Your task to perform on an android device: What's on my calendar tomorrow? Image 0: 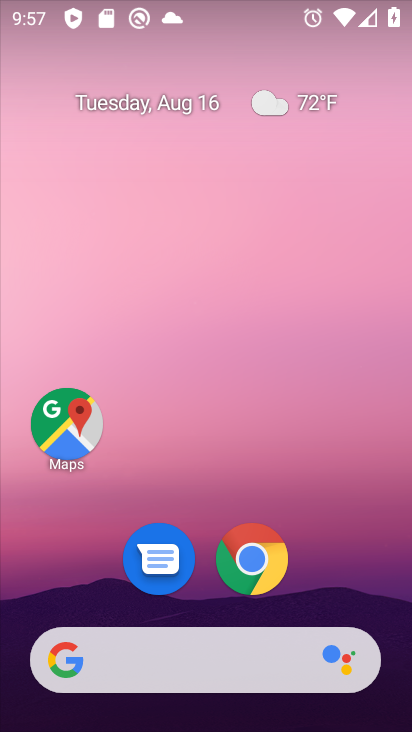
Step 0: drag from (156, 668) to (248, 132)
Your task to perform on an android device: What's on my calendar tomorrow? Image 1: 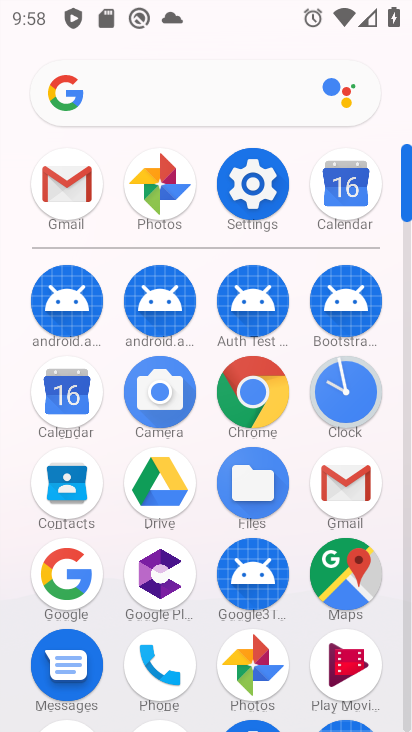
Step 1: click (69, 399)
Your task to perform on an android device: What's on my calendar tomorrow? Image 2: 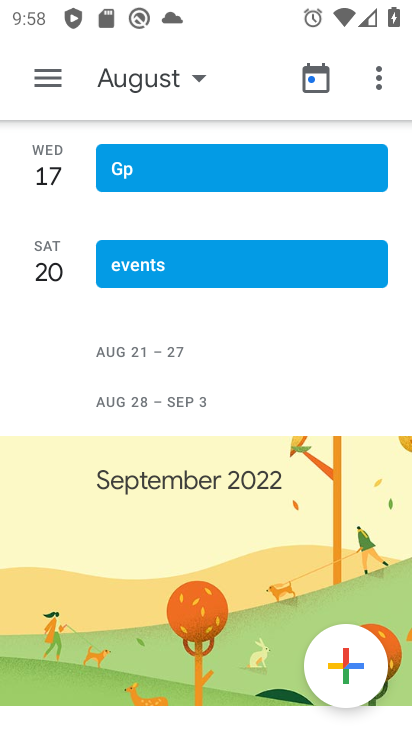
Step 2: click (317, 82)
Your task to perform on an android device: What's on my calendar tomorrow? Image 3: 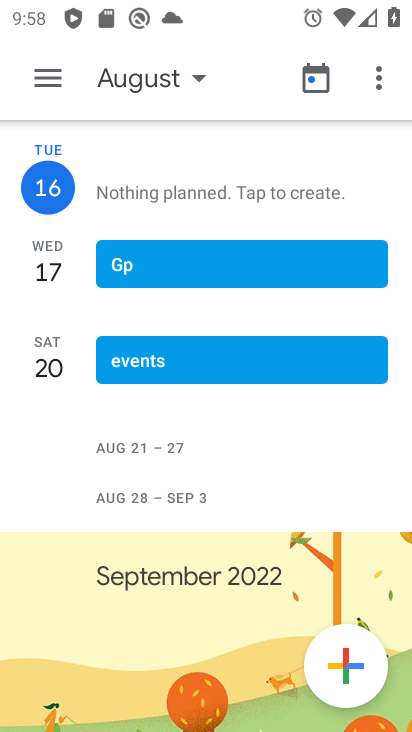
Step 3: click (317, 79)
Your task to perform on an android device: What's on my calendar tomorrow? Image 4: 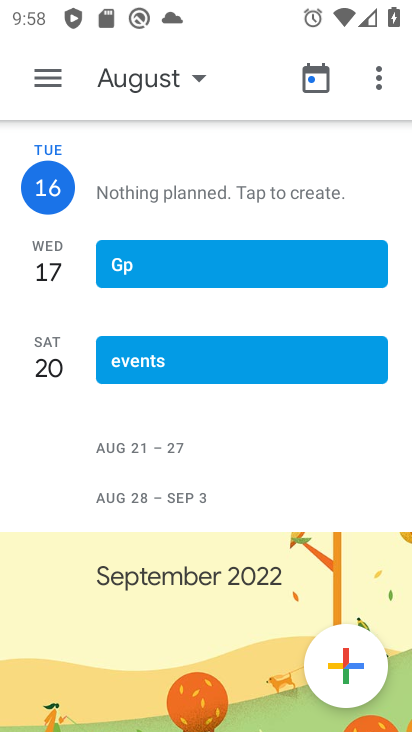
Step 4: click (200, 75)
Your task to perform on an android device: What's on my calendar tomorrow? Image 5: 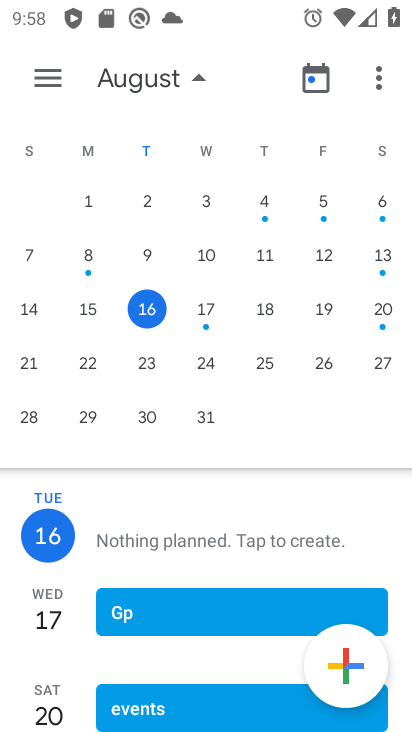
Step 5: click (206, 310)
Your task to perform on an android device: What's on my calendar tomorrow? Image 6: 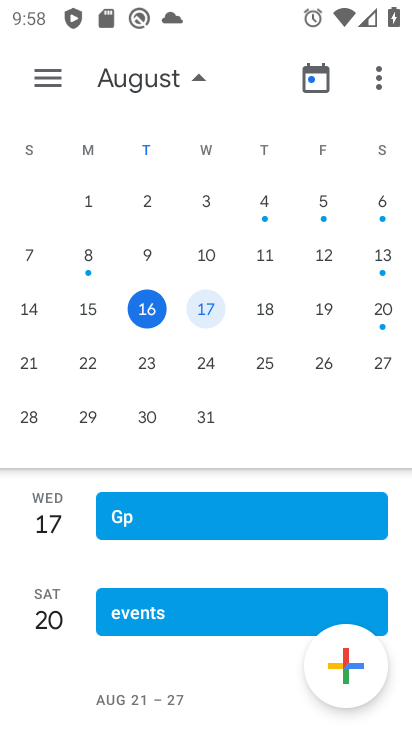
Step 6: click (45, 85)
Your task to perform on an android device: What's on my calendar tomorrow? Image 7: 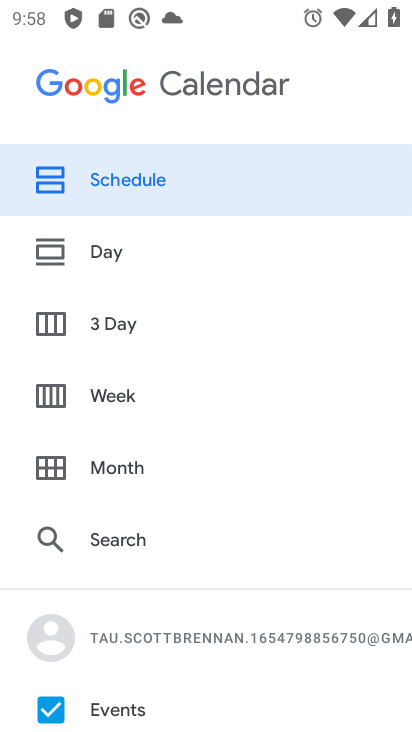
Step 7: click (154, 194)
Your task to perform on an android device: What's on my calendar tomorrow? Image 8: 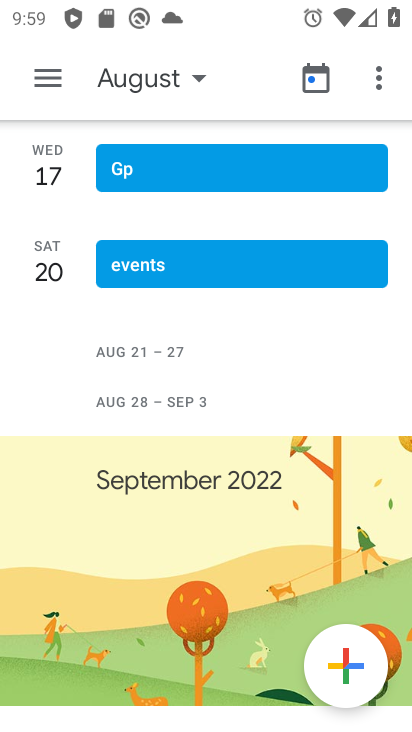
Step 8: task complete